Your task to perform on an android device: Open the phone app and click the voicemail tab. Image 0: 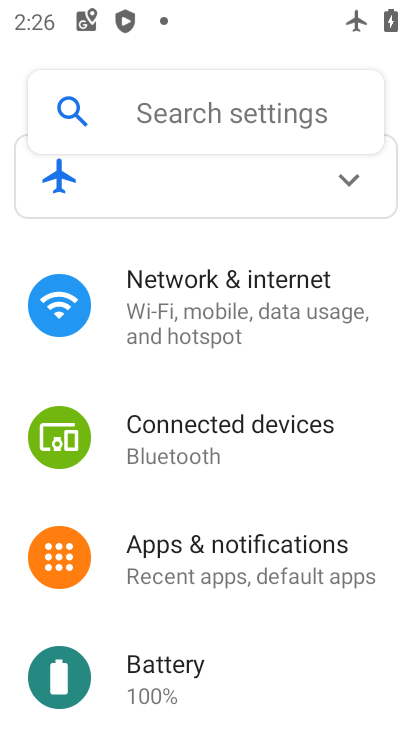
Step 0: press home button
Your task to perform on an android device: Open the phone app and click the voicemail tab. Image 1: 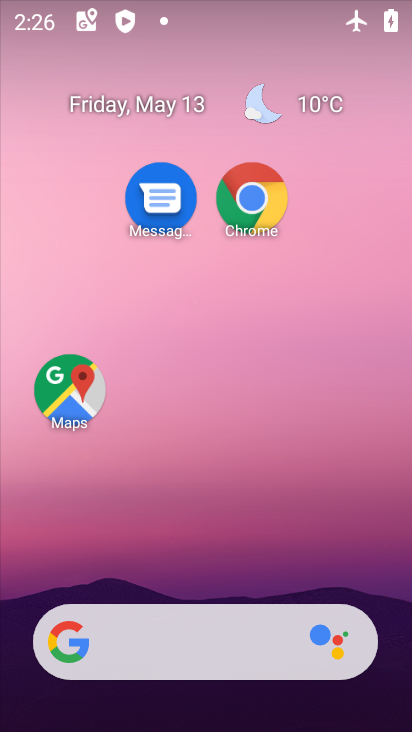
Step 1: drag from (188, 613) to (340, 31)
Your task to perform on an android device: Open the phone app and click the voicemail tab. Image 2: 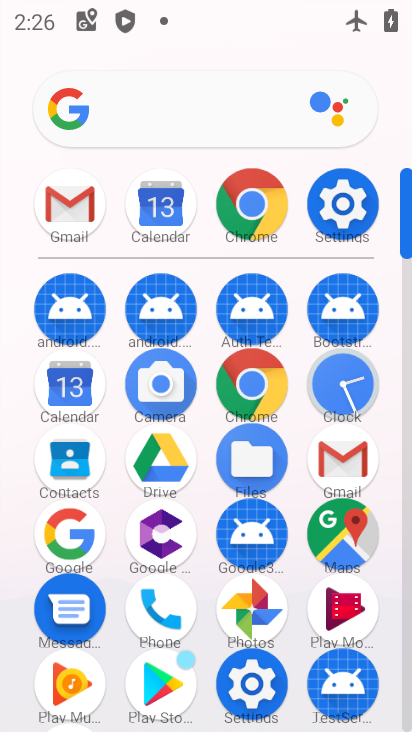
Step 2: click (152, 601)
Your task to perform on an android device: Open the phone app and click the voicemail tab. Image 3: 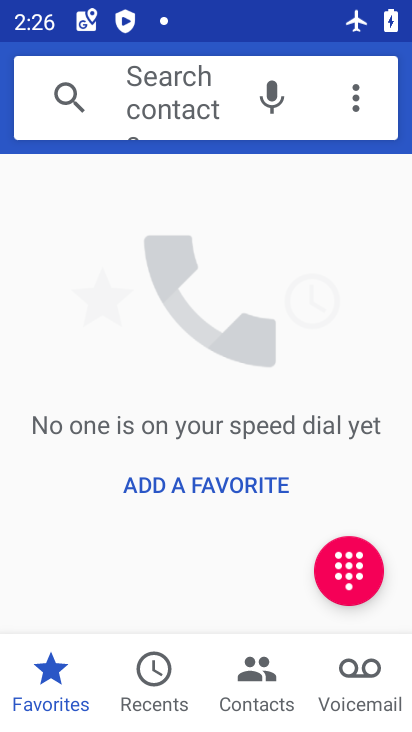
Step 3: click (330, 673)
Your task to perform on an android device: Open the phone app and click the voicemail tab. Image 4: 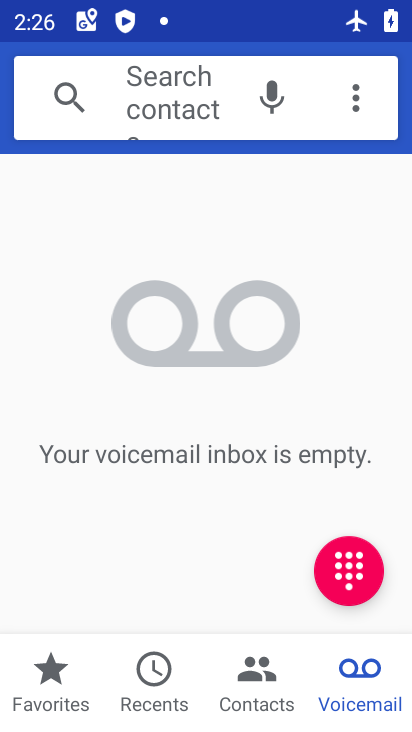
Step 4: task complete